Your task to perform on an android device: Go to sound settings Image 0: 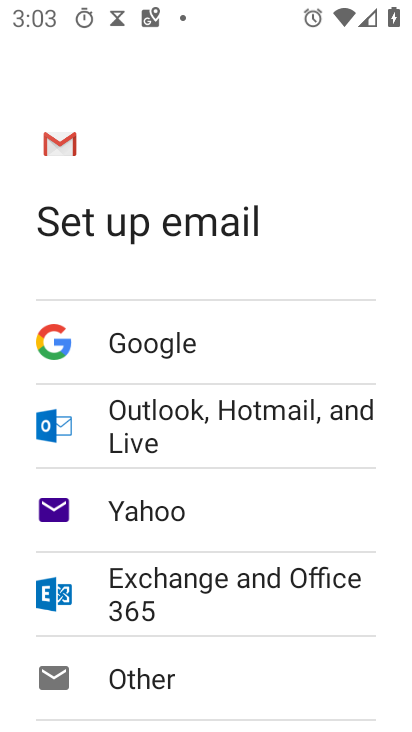
Step 0: press back button
Your task to perform on an android device: Go to sound settings Image 1: 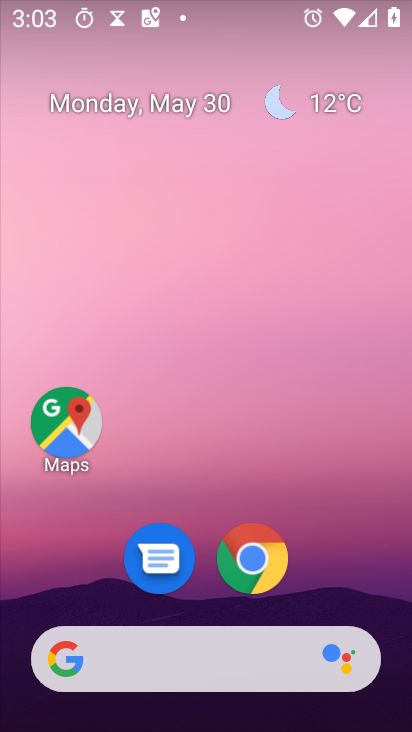
Step 1: drag from (208, 536) to (283, 19)
Your task to perform on an android device: Go to sound settings Image 2: 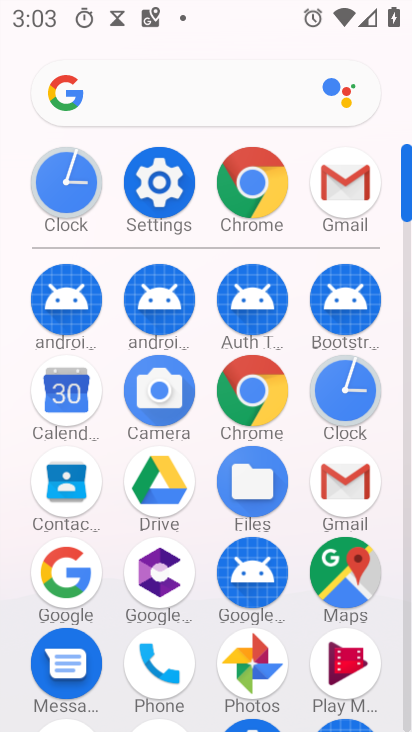
Step 2: click (159, 166)
Your task to perform on an android device: Go to sound settings Image 3: 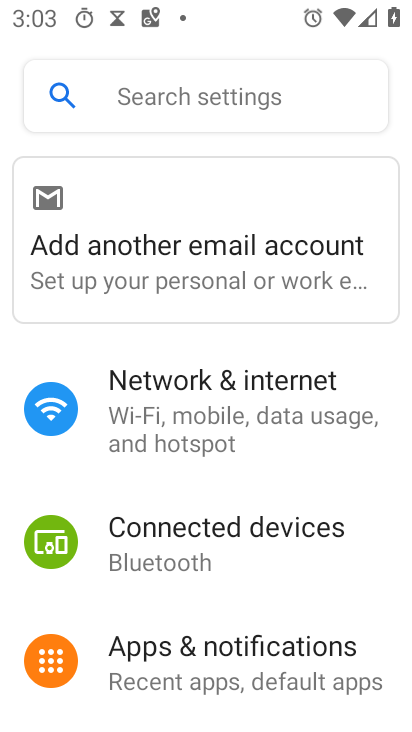
Step 3: drag from (209, 627) to (271, 220)
Your task to perform on an android device: Go to sound settings Image 4: 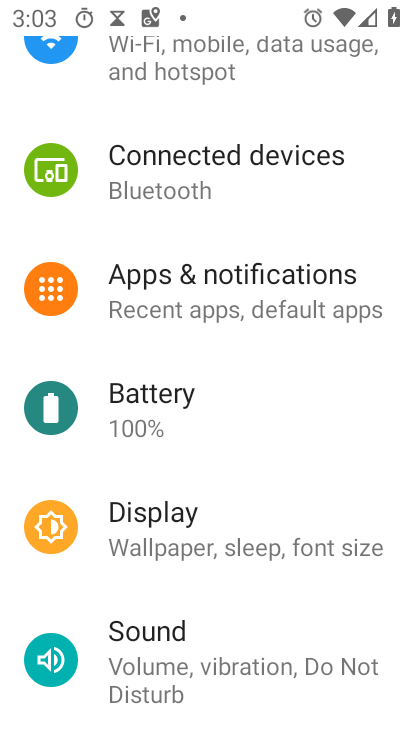
Step 4: click (152, 670)
Your task to perform on an android device: Go to sound settings Image 5: 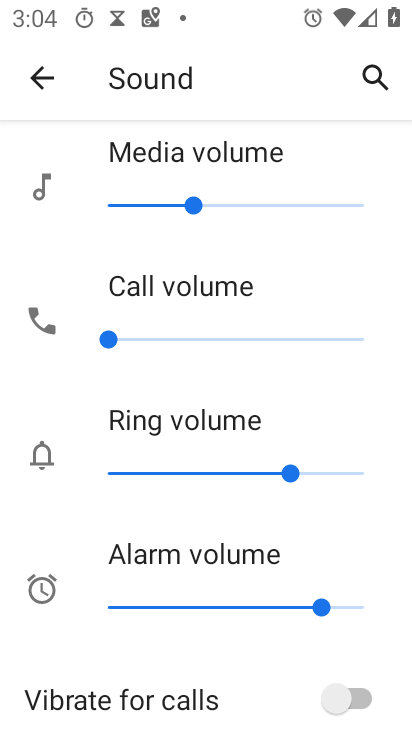
Step 5: task complete